Your task to perform on an android device: Search for pizza restaurants on Maps Image 0: 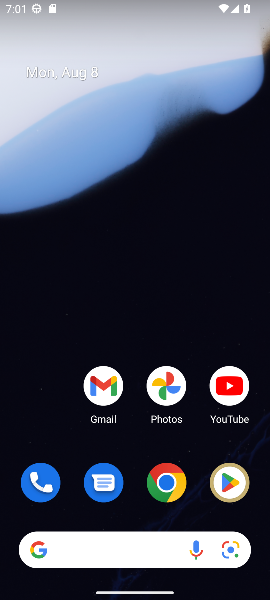
Step 0: drag from (52, 481) to (88, 98)
Your task to perform on an android device: Search for pizza restaurants on Maps Image 1: 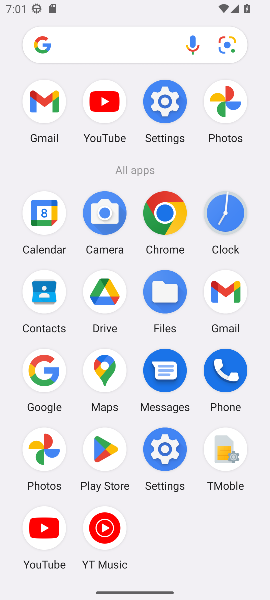
Step 1: click (100, 369)
Your task to perform on an android device: Search for pizza restaurants on Maps Image 2: 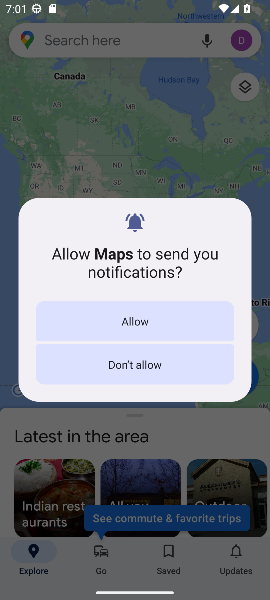
Step 2: click (142, 319)
Your task to perform on an android device: Search for pizza restaurants on Maps Image 3: 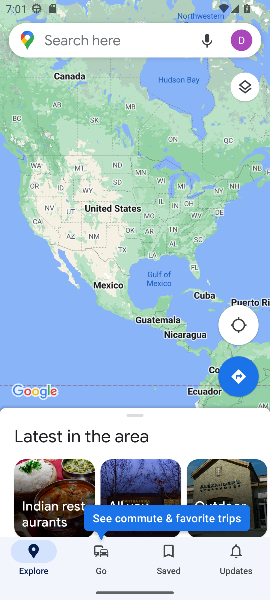
Step 3: click (107, 29)
Your task to perform on an android device: Search for pizza restaurants on Maps Image 4: 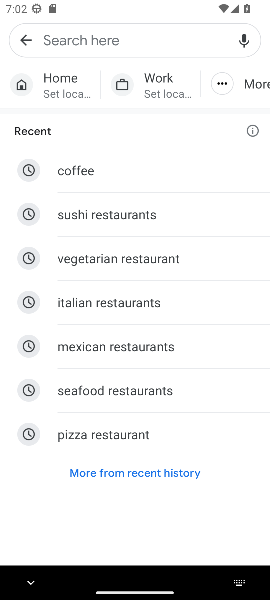
Step 4: click (125, 438)
Your task to perform on an android device: Search for pizza restaurants on Maps Image 5: 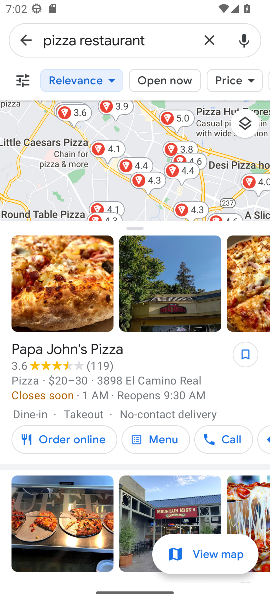
Step 5: task complete